Your task to perform on an android device: Open the Play Movies app and select the watchlist tab. Image 0: 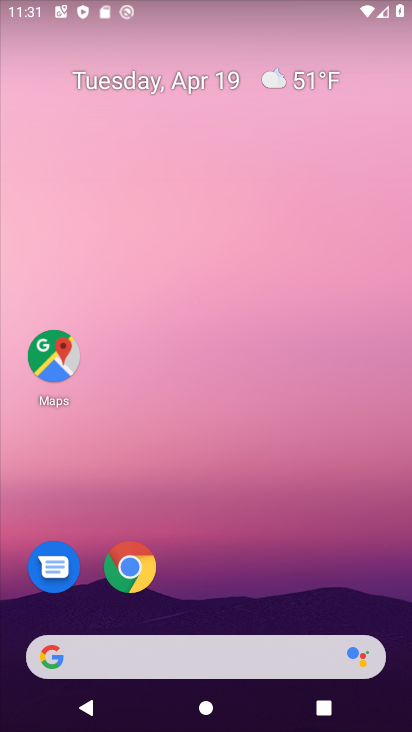
Step 0: drag from (206, 594) to (300, 1)
Your task to perform on an android device: Open the Play Movies app and select the watchlist tab. Image 1: 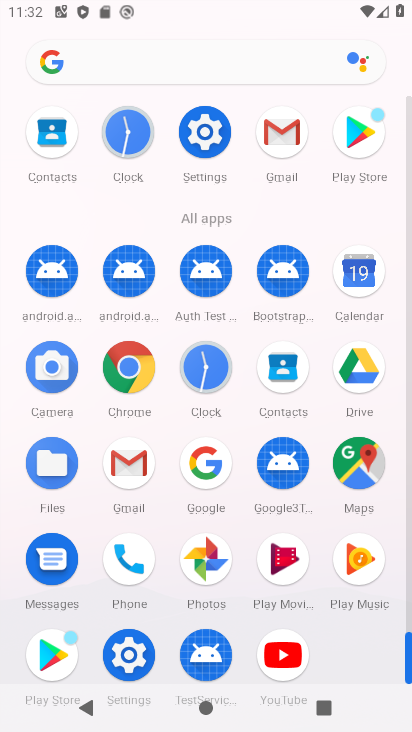
Step 1: click (287, 562)
Your task to perform on an android device: Open the Play Movies app and select the watchlist tab. Image 2: 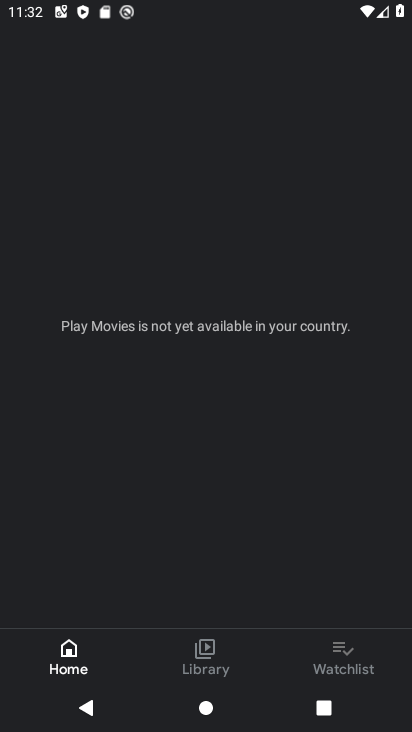
Step 2: click (358, 659)
Your task to perform on an android device: Open the Play Movies app and select the watchlist tab. Image 3: 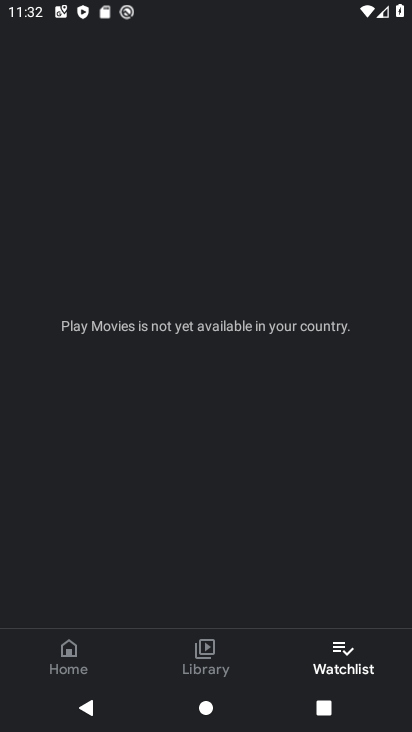
Step 3: task complete